Your task to perform on an android device: What's the weather going to be this weekend? Image 0: 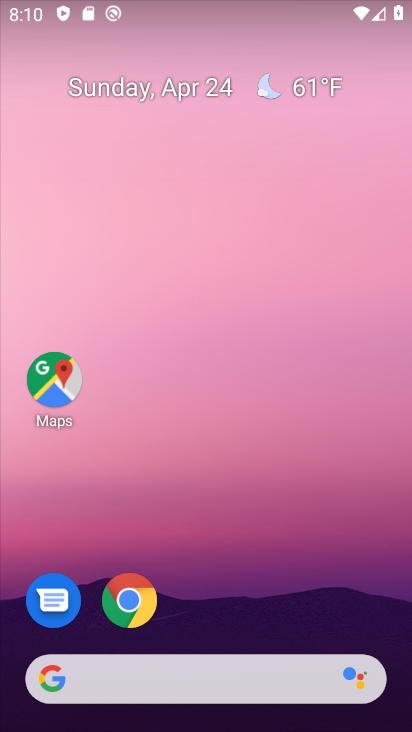
Step 0: click (261, 82)
Your task to perform on an android device: What's the weather going to be this weekend? Image 1: 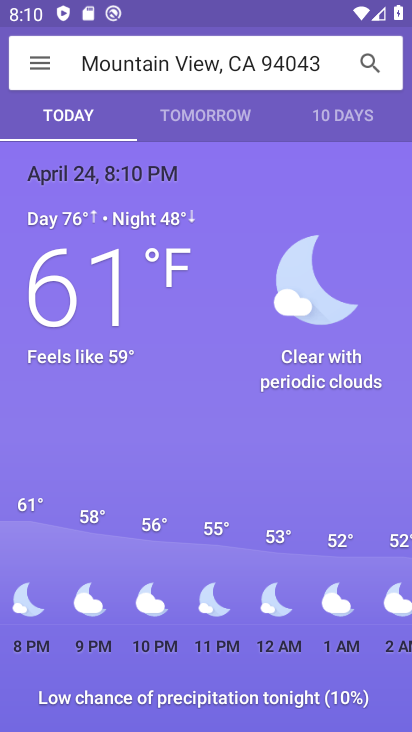
Step 1: click (345, 114)
Your task to perform on an android device: What's the weather going to be this weekend? Image 2: 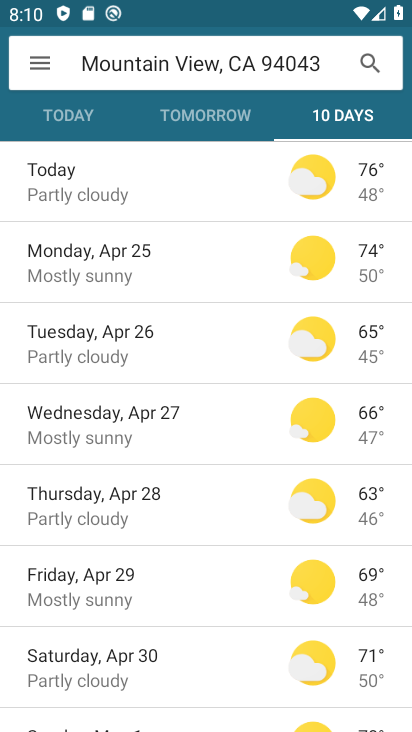
Step 2: drag from (161, 650) to (178, 397)
Your task to perform on an android device: What's the weather going to be this weekend? Image 3: 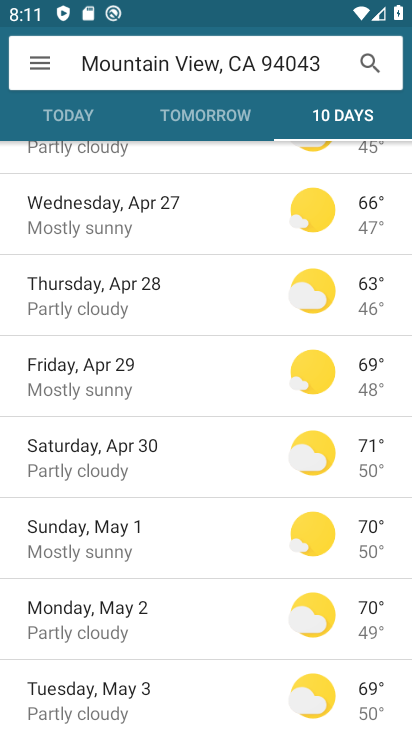
Step 3: drag from (155, 462) to (187, 357)
Your task to perform on an android device: What's the weather going to be this weekend? Image 4: 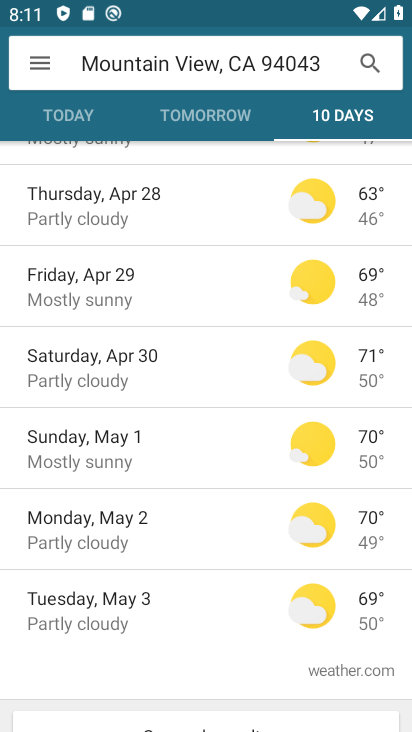
Step 4: click (163, 365)
Your task to perform on an android device: What's the weather going to be this weekend? Image 5: 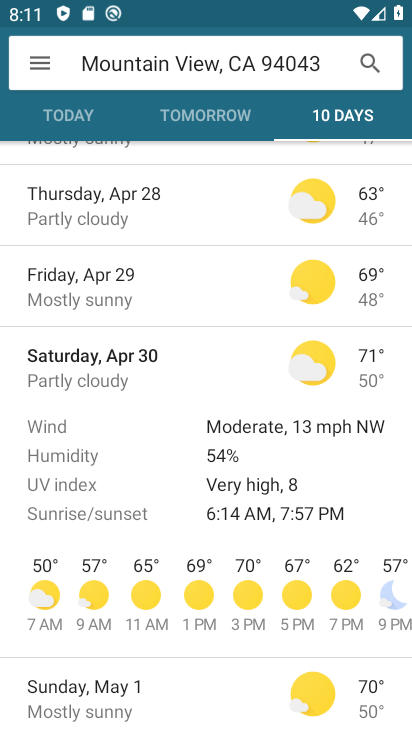
Step 5: task complete